Your task to perform on an android device: open chrome privacy settings Image 0: 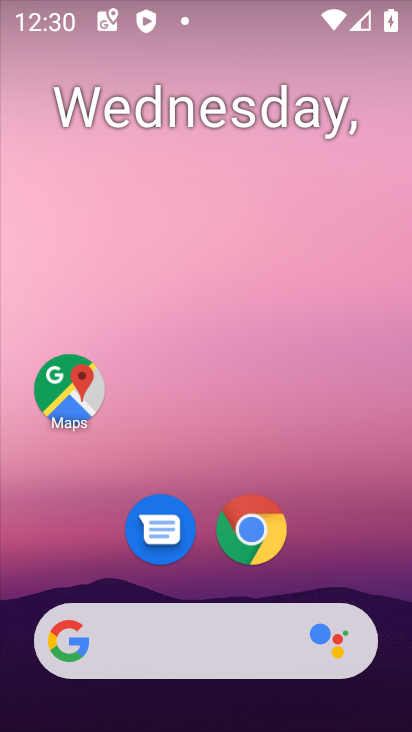
Step 0: click (247, 523)
Your task to perform on an android device: open chrome privacy settings Image 1: 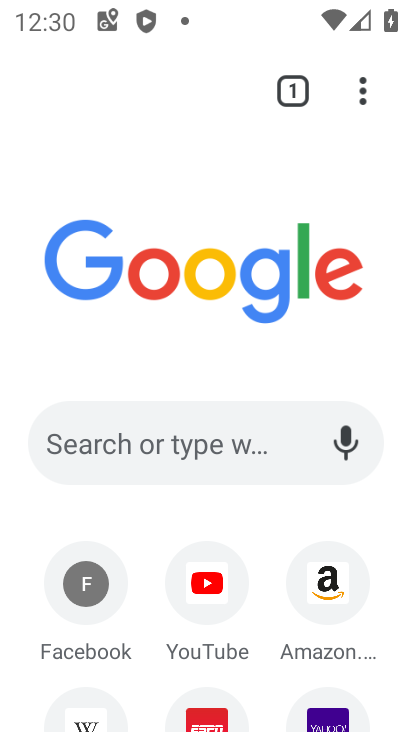
Step 1: click (366, 98)
Your task to perform on an android device: open chrome privacy settings Image 2: 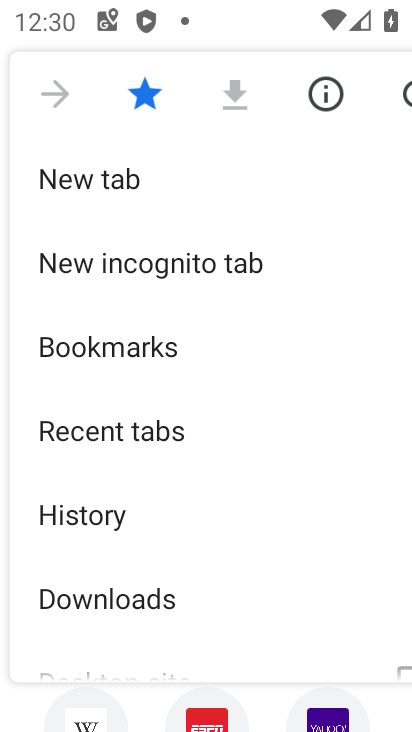
Step 2: drag from (237, 619) to (237, 227)
Your task to perform on an android device: open chrome privacy settings Image 3: 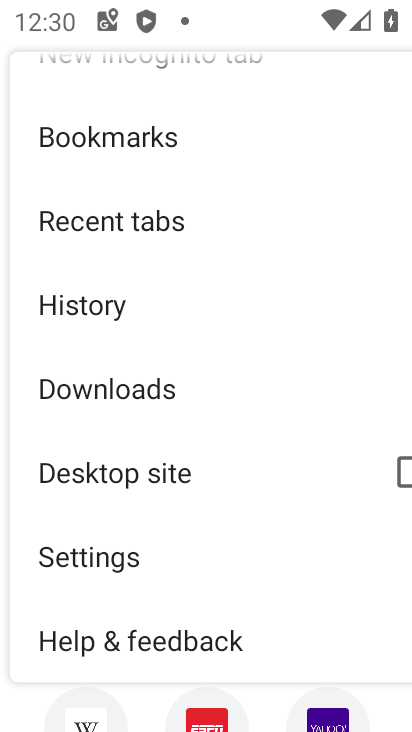
Step 3: click (83, 556)
Your task to perform on an android device: open chrome privacy settings Image 4: 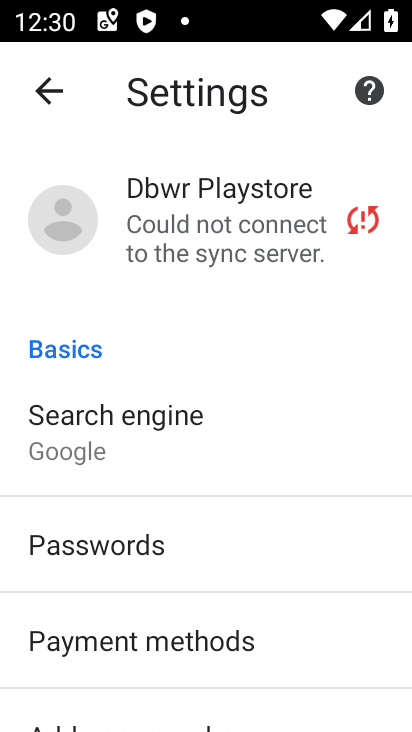
Step 4: drag from (313, 647) to (253, 222)
Your task to perform on an android device: open chrome privacy settings Image 5: 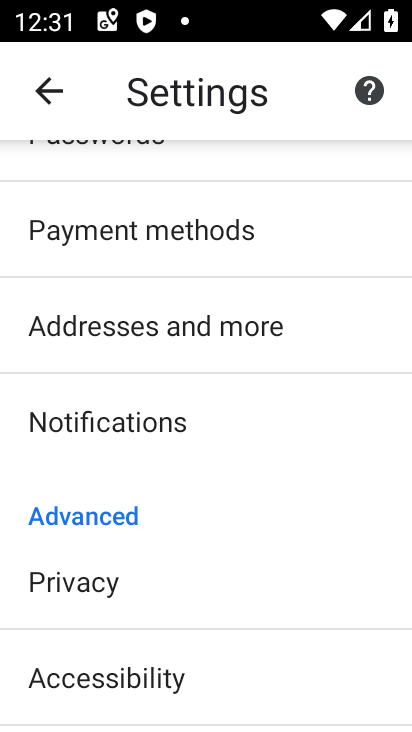
Step 5: drag from (240, 555) to (306, 278)
Your task to perform on an android device: open chrome privacy settings Image 6: 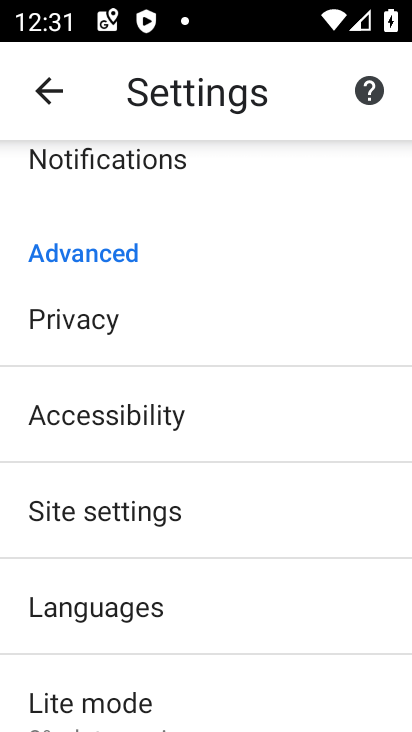
Step 6: click (43, 318)
Your task to perform on an android device: open chrome privacy settings Image 7: 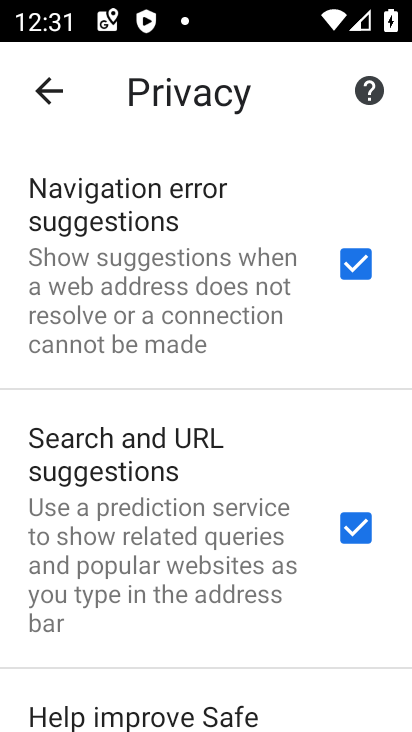
Step 7: task complete